Your task to perform on an android device: toggle notifications settings in the gmail app Image 0: 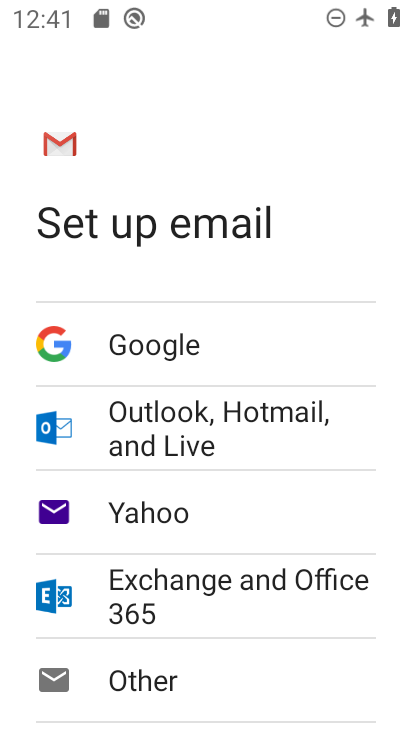
Step 0: press home button
Your task to perform on an android device: toggle notifications settings in the gmail app Image 1: 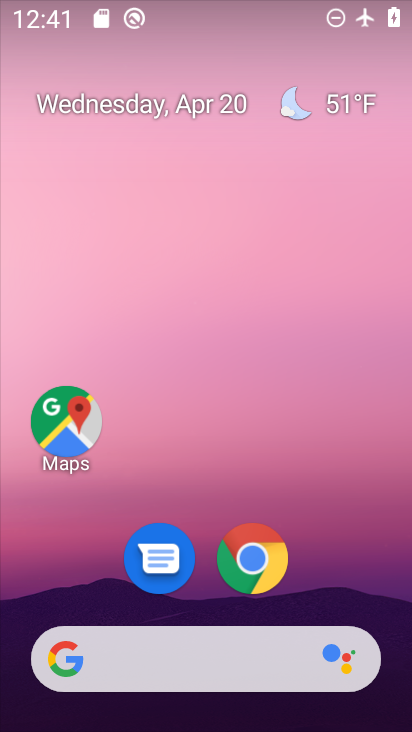
Step 1: drag from (364, 603) to (318, 248)
Your task to perform on an android device: toggle notifications settings in the gmail app Image 2: 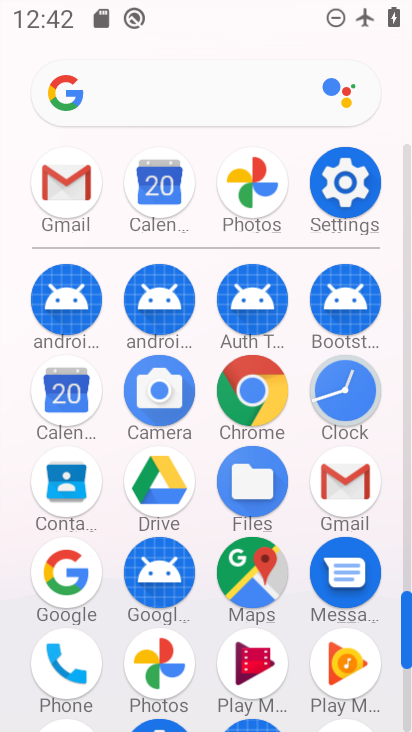
Step 2: click (407, 693)
Your task to perform on an android device: toggle notifications settings in the gmail app Image 3: 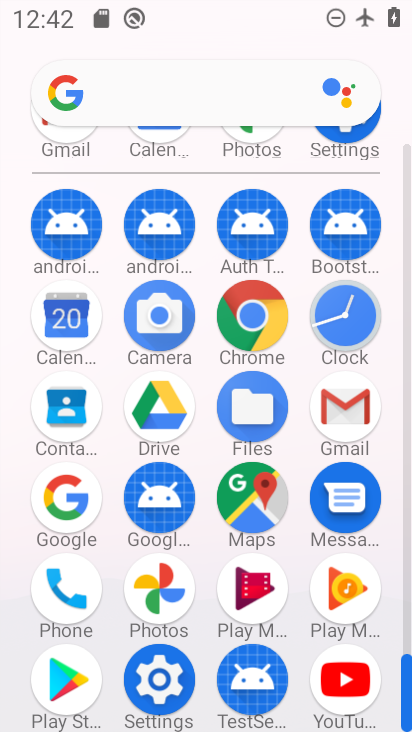
Step 3: click (341, 405)
Your task to perform on an android device: toggle notifications settings in the gmail app Image 4: 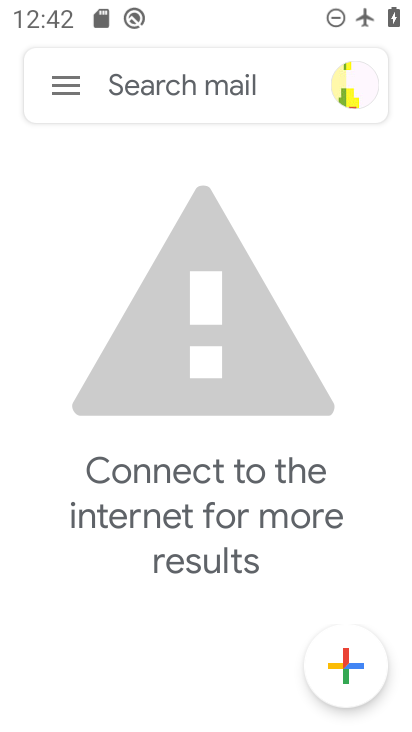
Step 4: click (56, 83)
Your task to perform on an android device: toggle notifications settings in the gmail app Image 5: 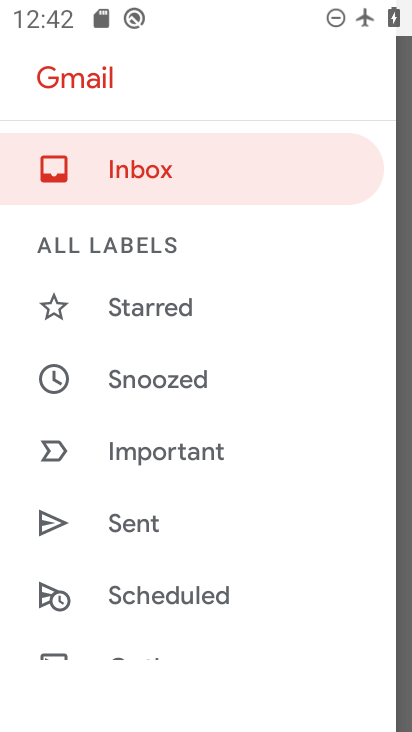
Step 5: drag from (271, 631) to (280, 387)
Your task to perform on an android device: toggle notifications settings in the gmail app Image 6: 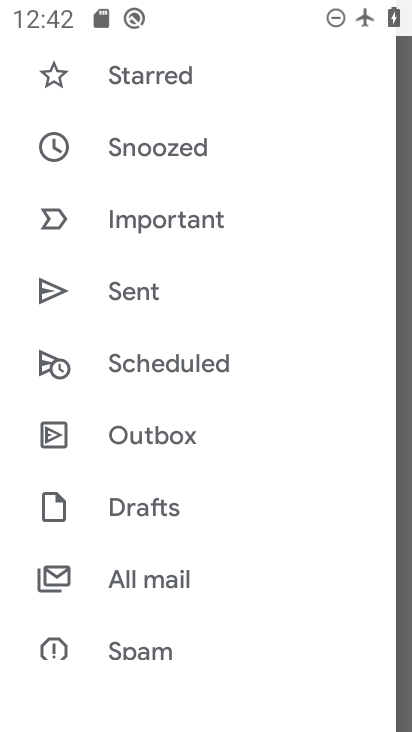
Step 6: drag from (258, 622) to (277, 383)
Your task to perform on an android device: toggle notifications settings in the gmail app Image 7: 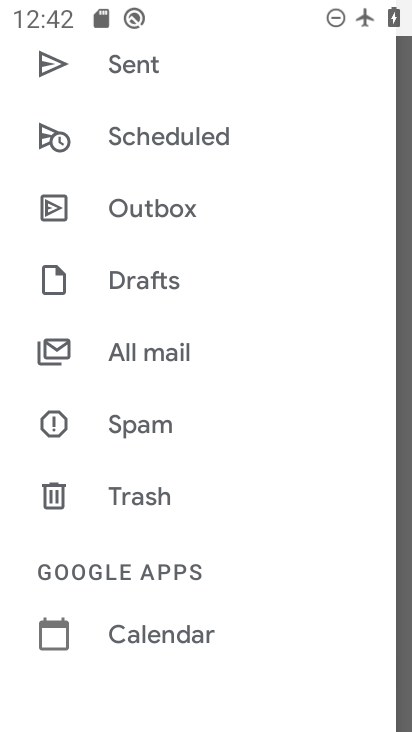
Step 7: drag from (270, 626) to (272, 370)
Your task to perform on an android device: toggle notifications settings in the gmail app Image 8: 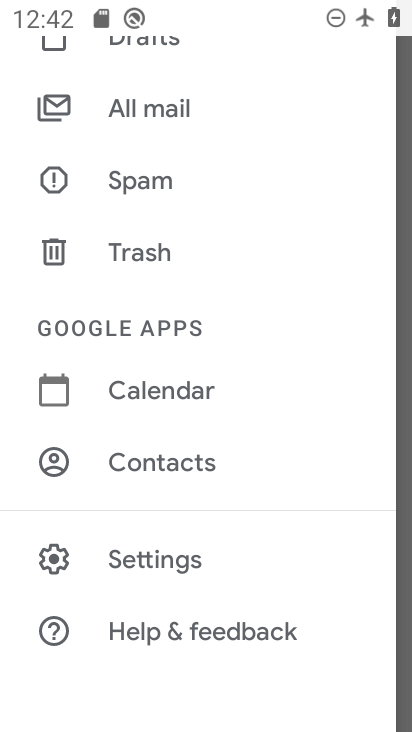
Step 8: click (133, 553)
Your task to perform on an android device: toggle notifications settings in the gmail app Image 9: 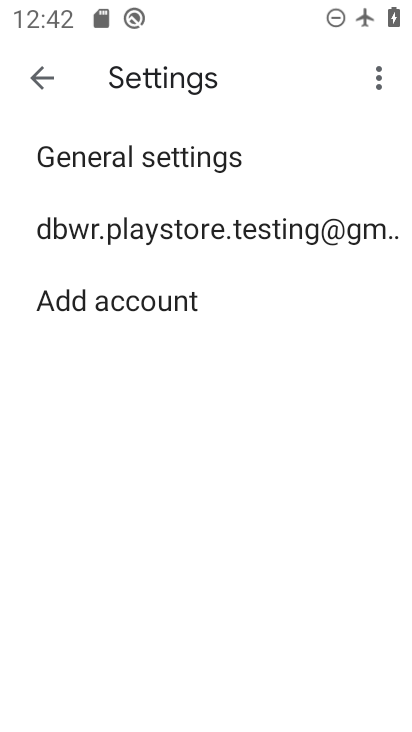
Step 9: click (170, 228)
Your task to perform on an android device: toggle notifications settings in the gmail app Image 10: 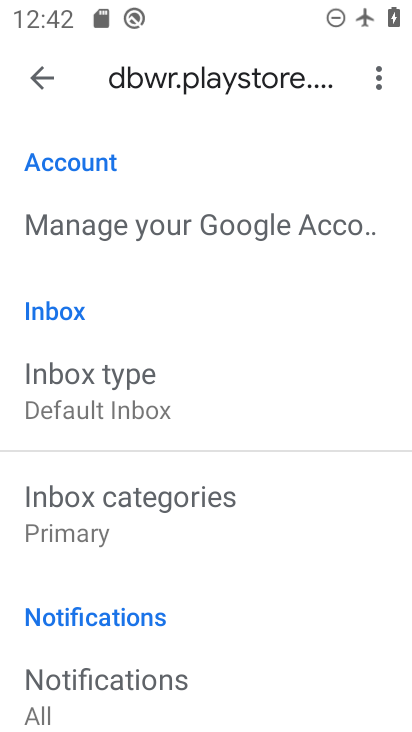
Step 10: drag from (261, 640) to (257, 378)
Your task to perform on an android device: toggle notifications settings in the gmail app Image 11: 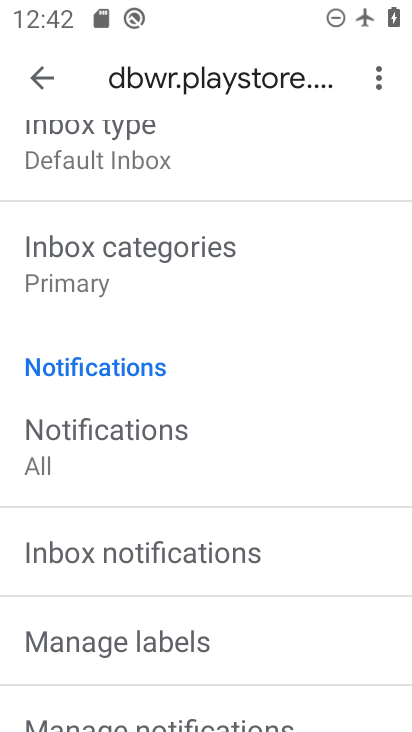
Step 11: drag from (299, 626) to (265, 334)
Your task to perform on an android device: toggle notifications settings in the gmail app Image 12: 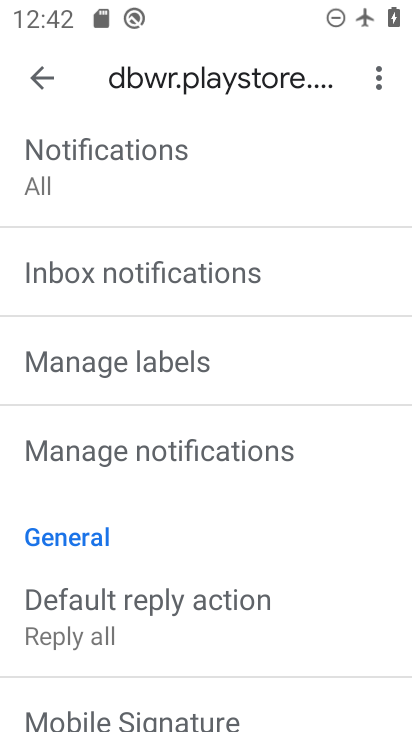
Step 12: click (100, 455)
Your task to perform on an android device: toggle notifications settings in the gmail app Image 13: 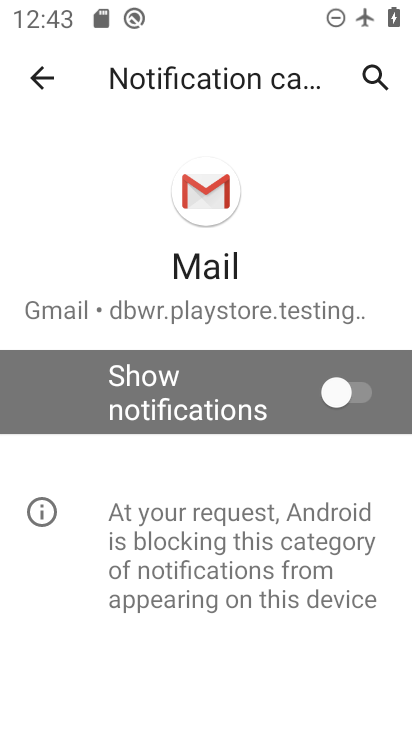
Step 13: click (362, 395)
Your task to perform on an android device: toggle notifications settings in the gmail app Image 14: 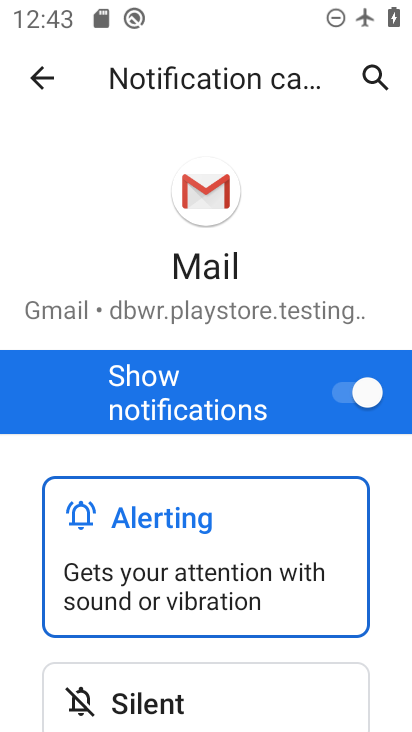
Step 14: task complete